Your task to perform on an android device: Show me the alarms in the clock app Image 0: 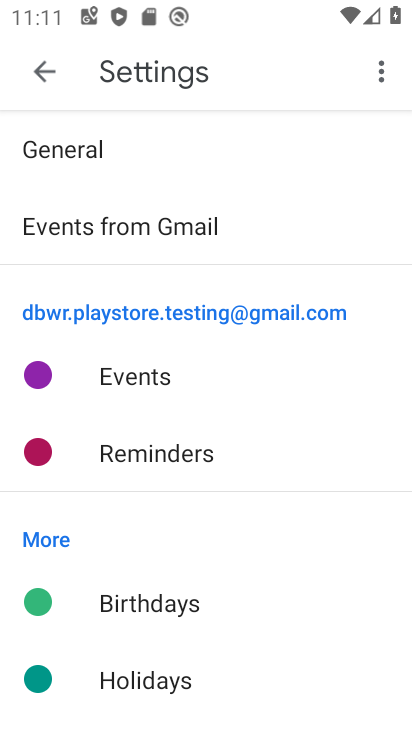
Step 0: press home button
Your task to perform on an android device: Show me the alarms in the clock app Image 1: 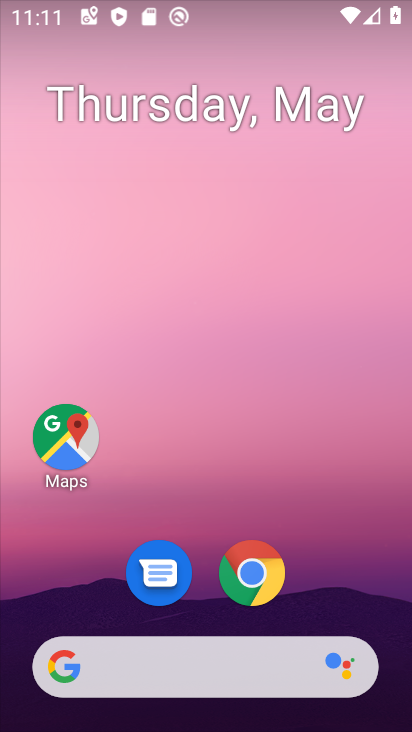
Step 1: drag from (224, 471) to (205, 139)
Your task to perform on an android device: Show me the alarms in the clock app Image 2: 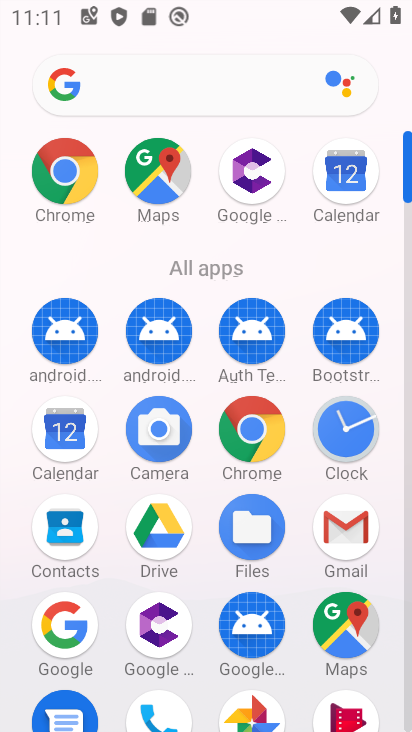
Step 2: click (325, 425)
Your task to perform on an android device: Show me the alarms in the clock app Image 3: 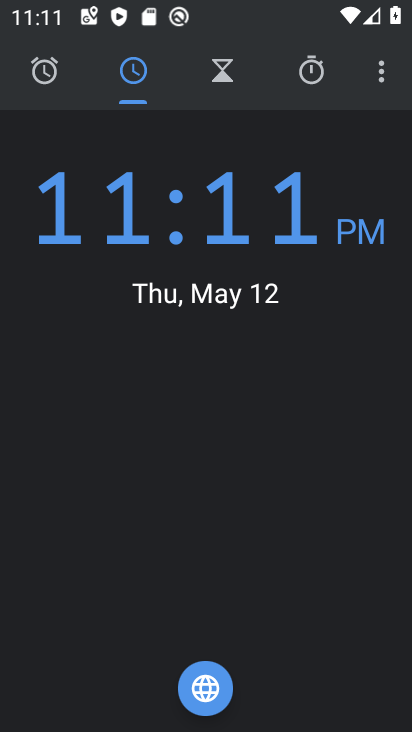
Step 3: click (26, 79)
Your task to perform on an android device: Show me the alarms in the clock app Image 4: 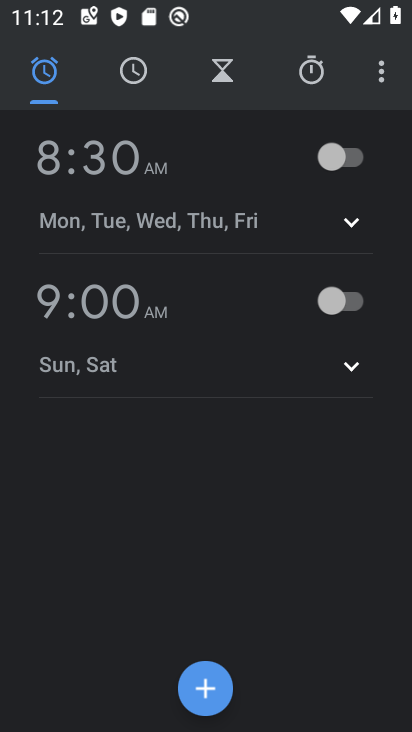
Step 4: task complete